Your task to perform on an android device: Open the stopwatch Image 0: 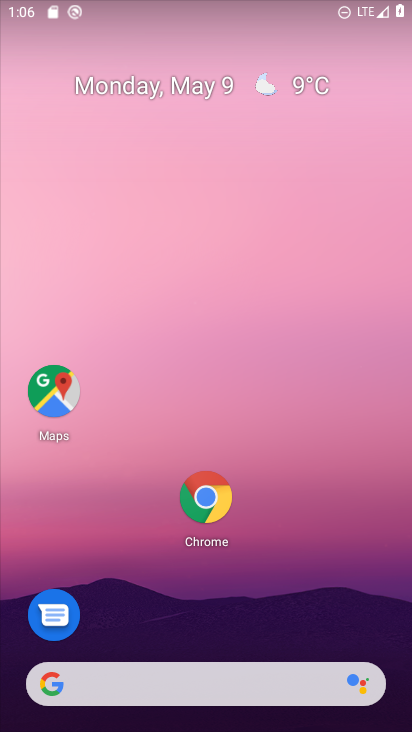
Step 0: drag from (343, 580) to (248, 143)
Your task to perform on an android device: Open the stopwatch Image 1: 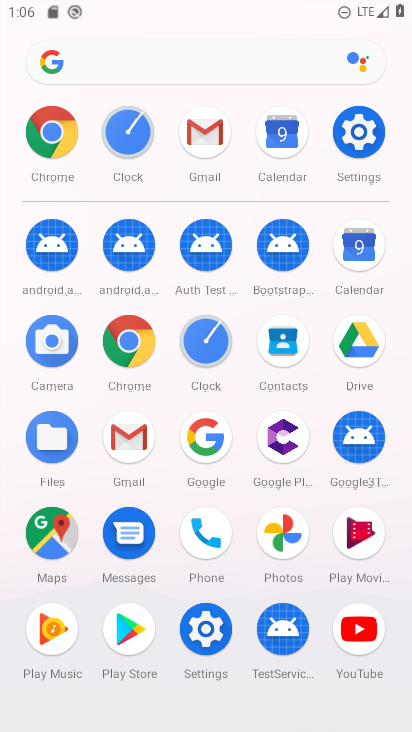
Step 1: click (133, 130)
Your task to perform on an android device: Open the stopwatch Image 2: 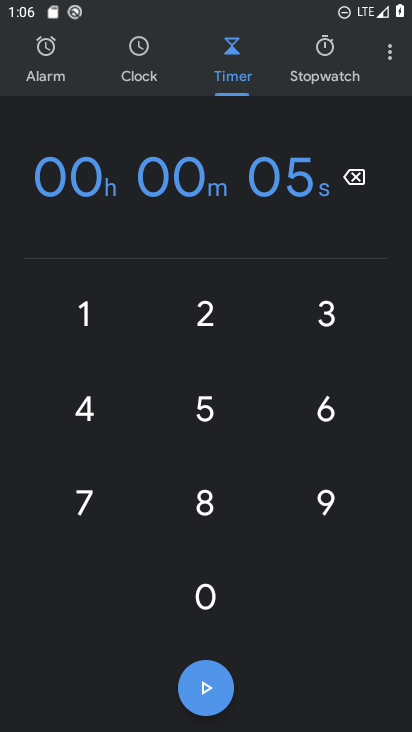
Step 2: click (312, 60)
Your task to perform on an android device: Open the stopwatch Image 3: 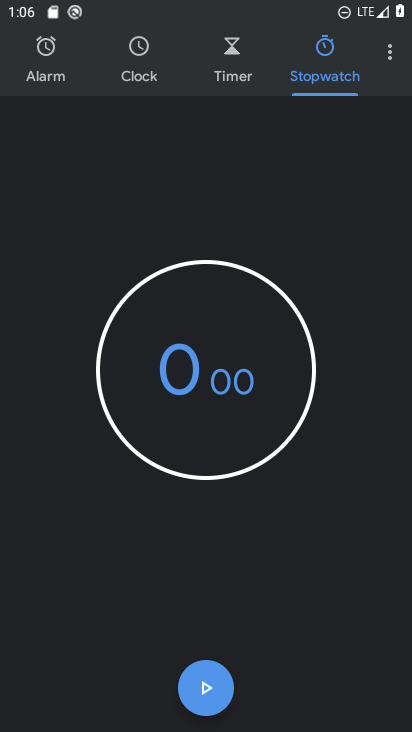
Step 3: task complete